Your task to perform on an android device: Search for "alienware area 51" on newegg, select the first entry, and add it to the cart. Image 0: 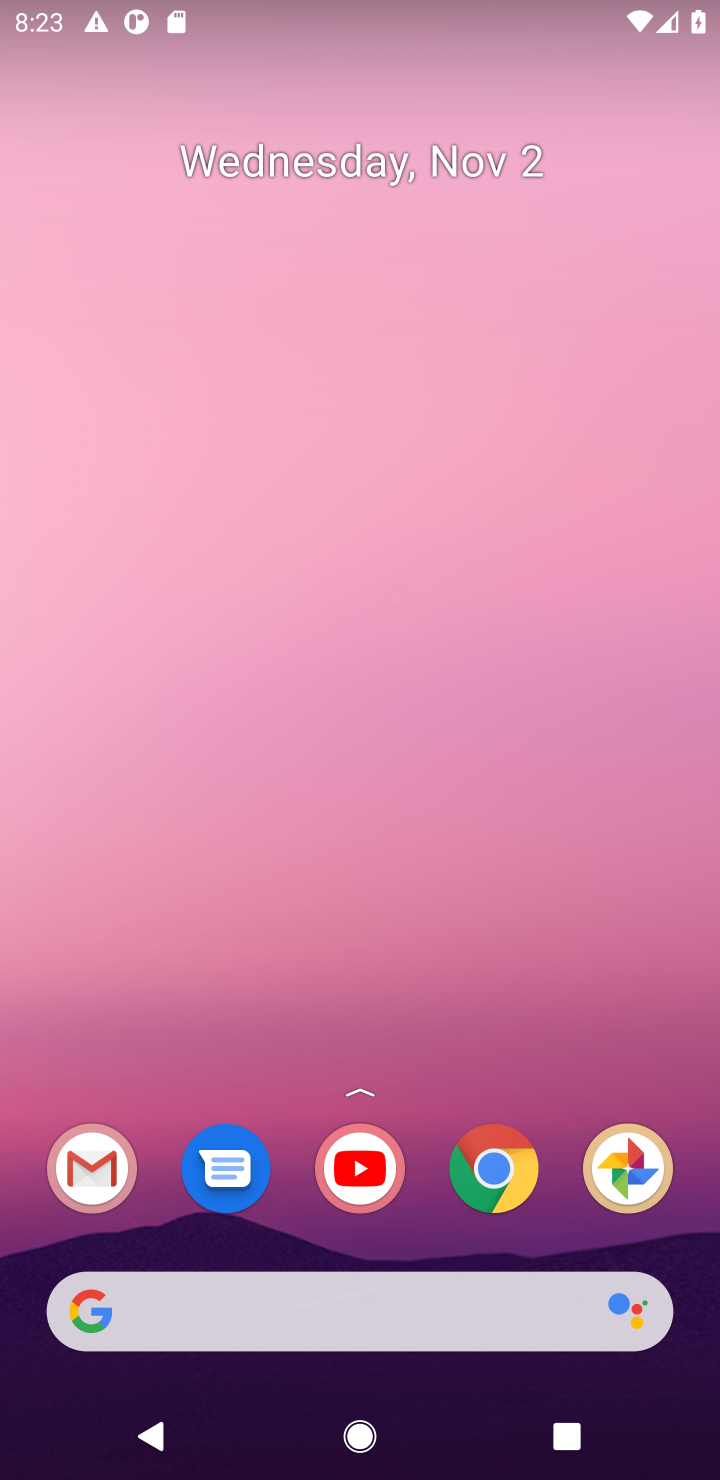
Step 0: click (494, 1169)
Your task to perform on an android device: Search for "alienware area 51" on newegg, select the first entry, and add it to the cart. Image 1: 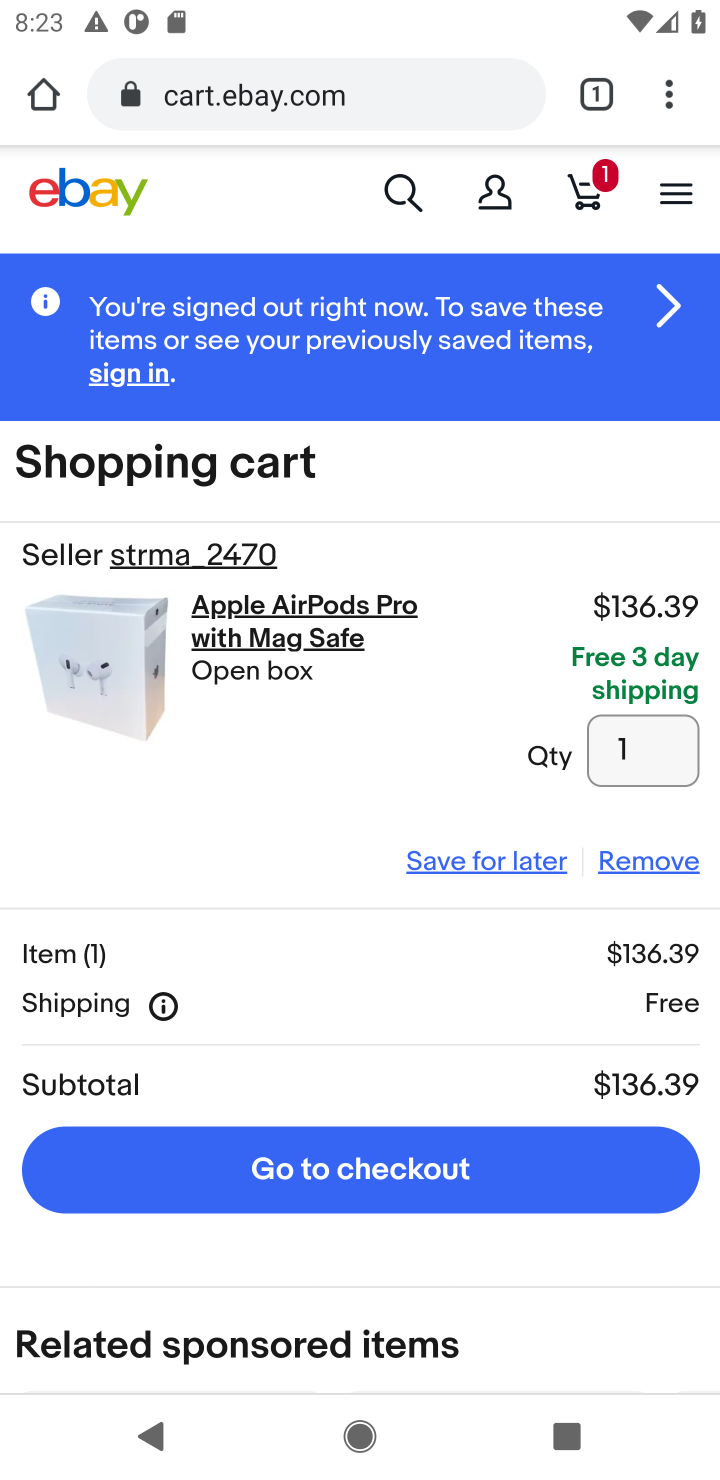
Step 1: click (404, 97)
Your task to perform on an android device: Search for "alienware area 51" on newegg, select the first entry, and add it to the cart. Image 2: 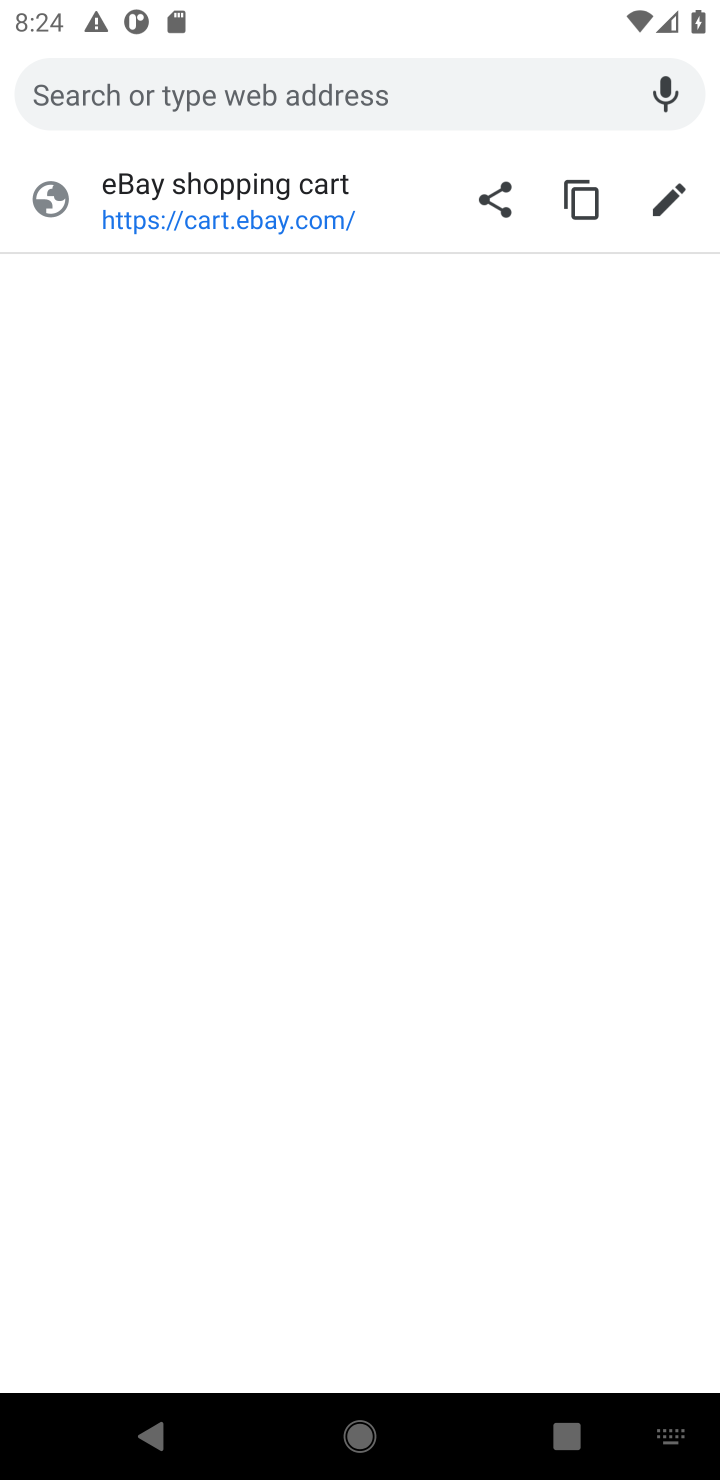
Step 2: type "newegg"
Your task to perform on an android device: Search for "alienware area 51" on newegg, select the first entry, and add it to the cart. Image 3: 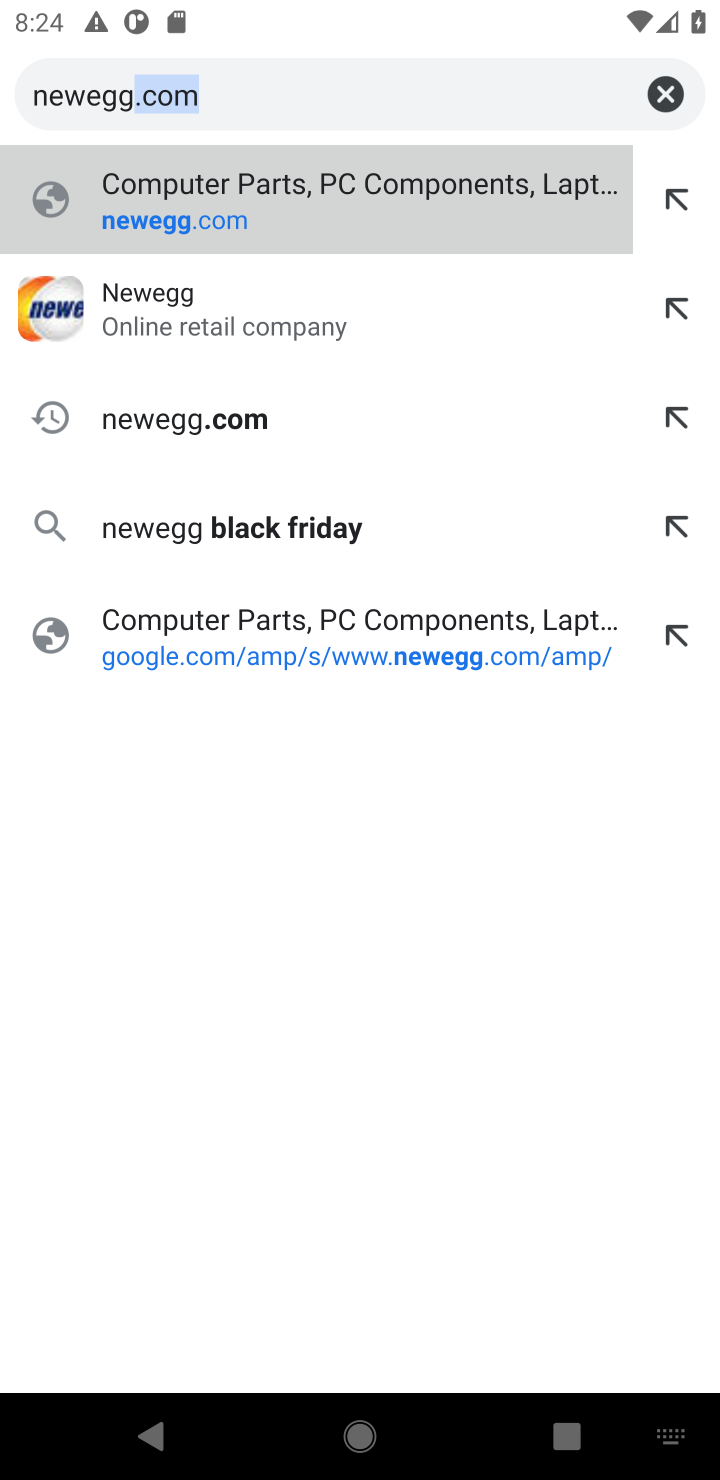
Step 3: click (220, 317)
Your task to perform on an android device: Search for "alienware area 51" on newegg, select the first entry, and add it to the cart. Image 4: 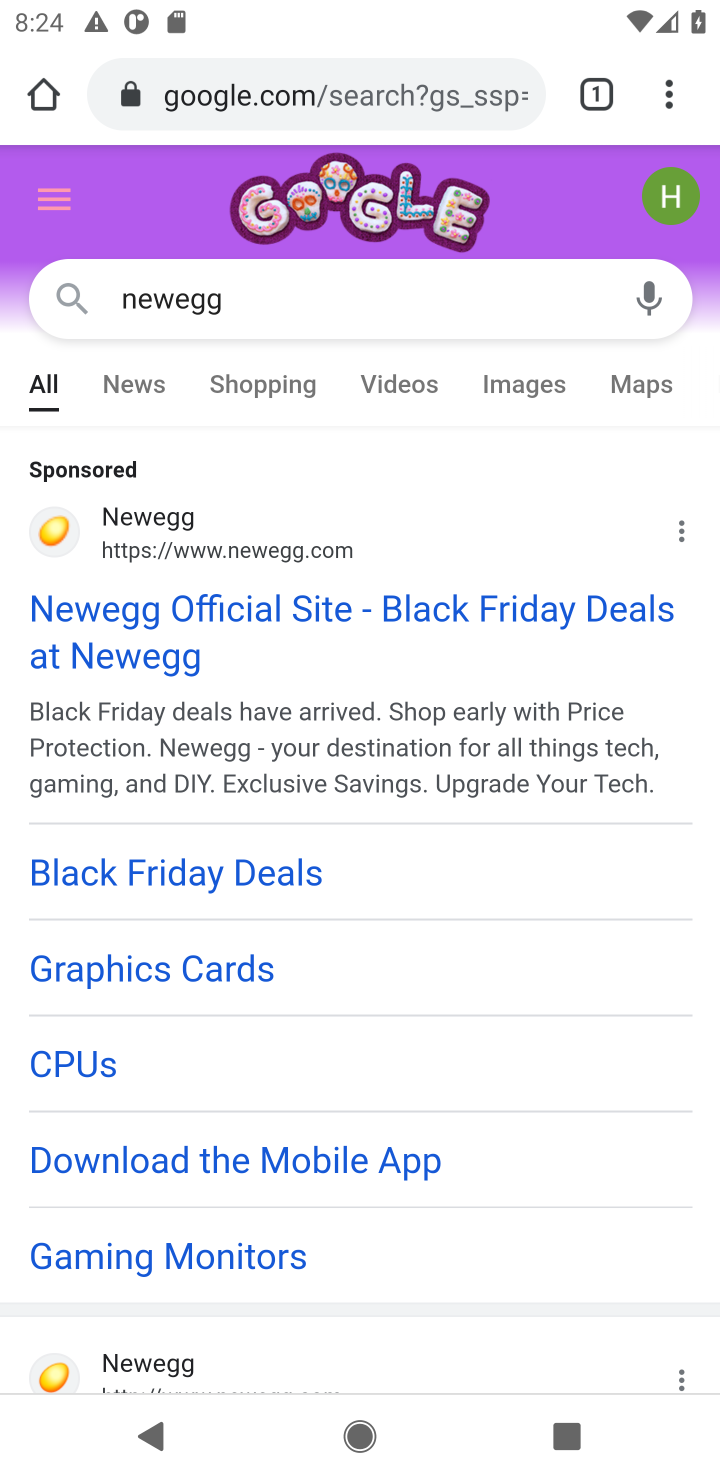
Step 4: click (378, 637)
Your task to perform on an android device: Search for "alienware area 51" on newegg, select the first entry, and add it to the cart. Image 5: 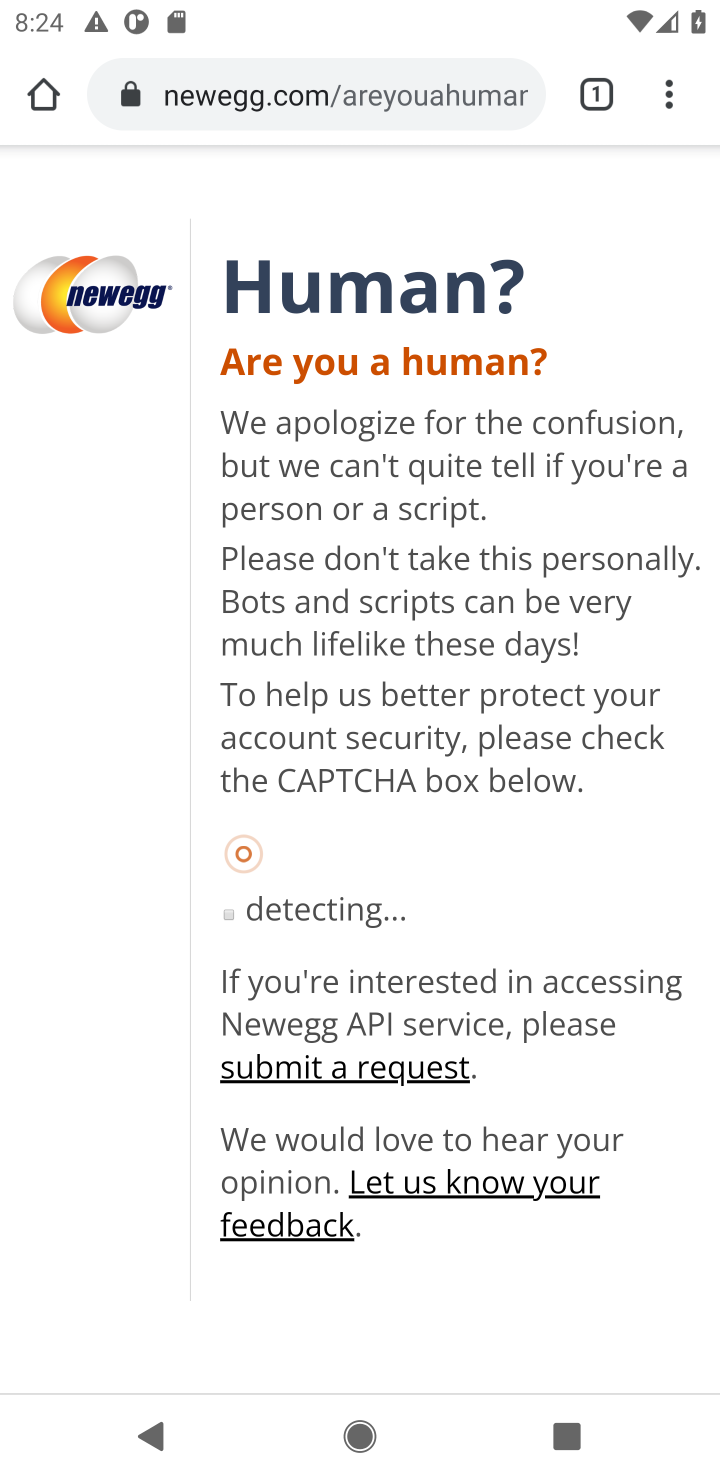
Step 5: press back button
Your task to perform on an android device: Search for "alienware area 51" on newegg, select the first entry, and add it to the cart. Image 6: 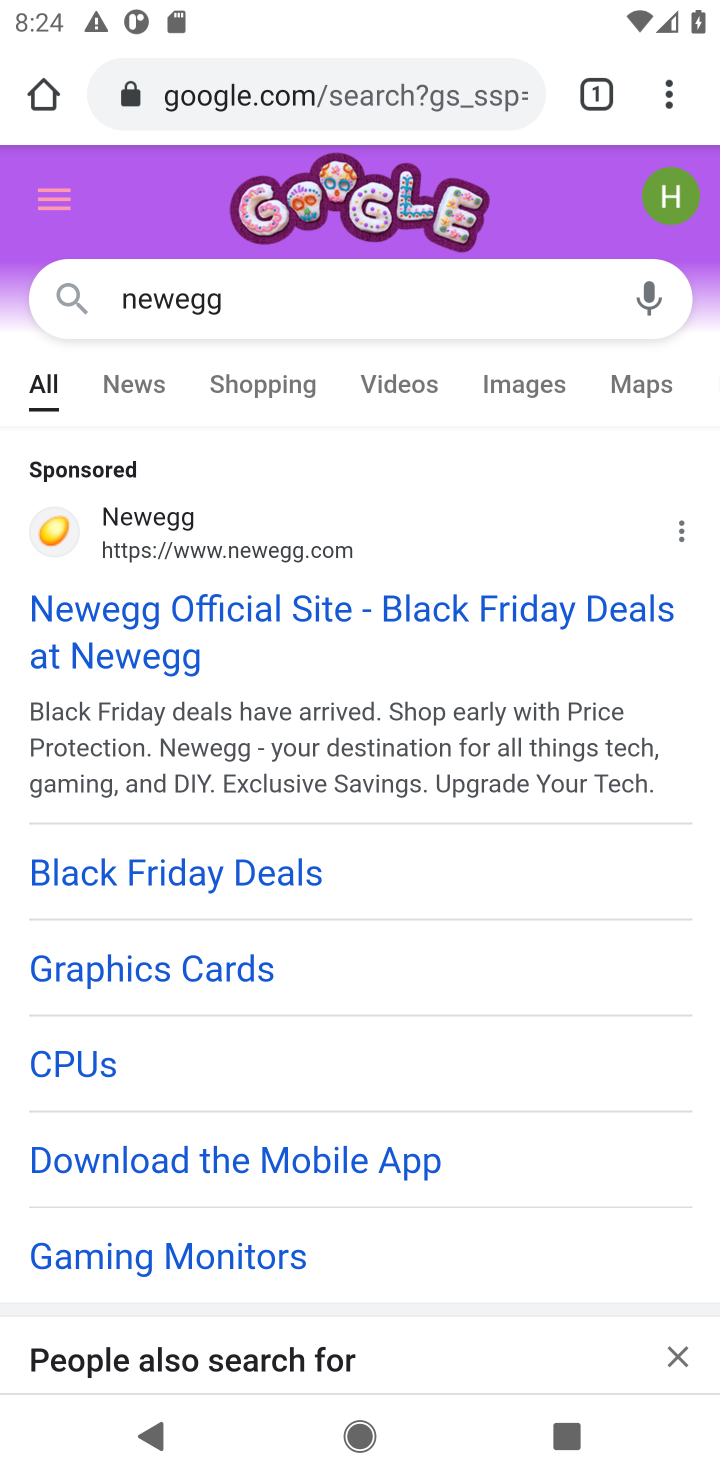
Step 6: drag from (404, 1299) to (516, 650)
Your task to perform on an android device: Search for "alienware area 51" on newegg, select the first entry, and add it to the cart. Image 7: 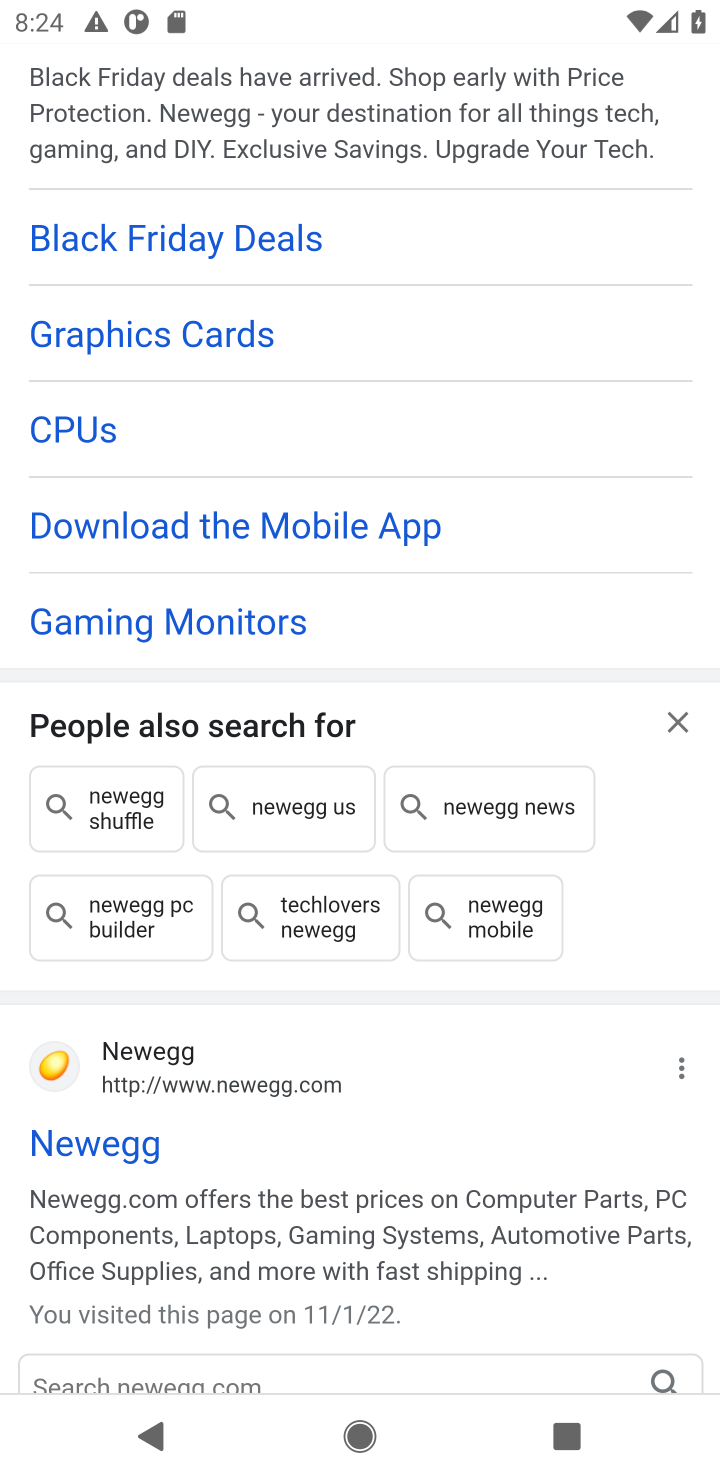
Step 7: click (196, 1158)
Your task to perform on an android device: Search for "alienware area 51" on newegg, select the first entry, and add it to the cart. Image 8: 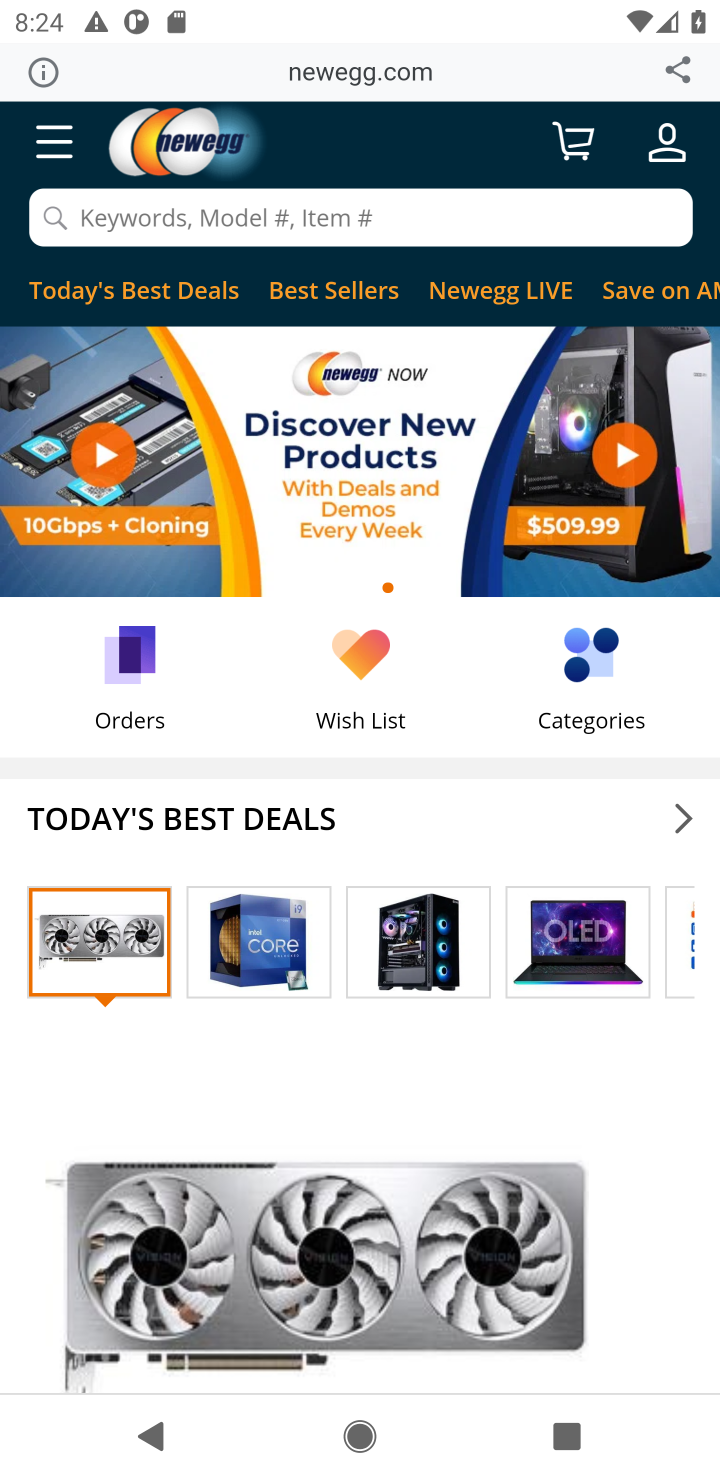
Step 8: click (429, 218)
Your task to perform on an android device: Search for "alienware area 51" on newegg, select the first entry, and add it to the cart. Image 9: 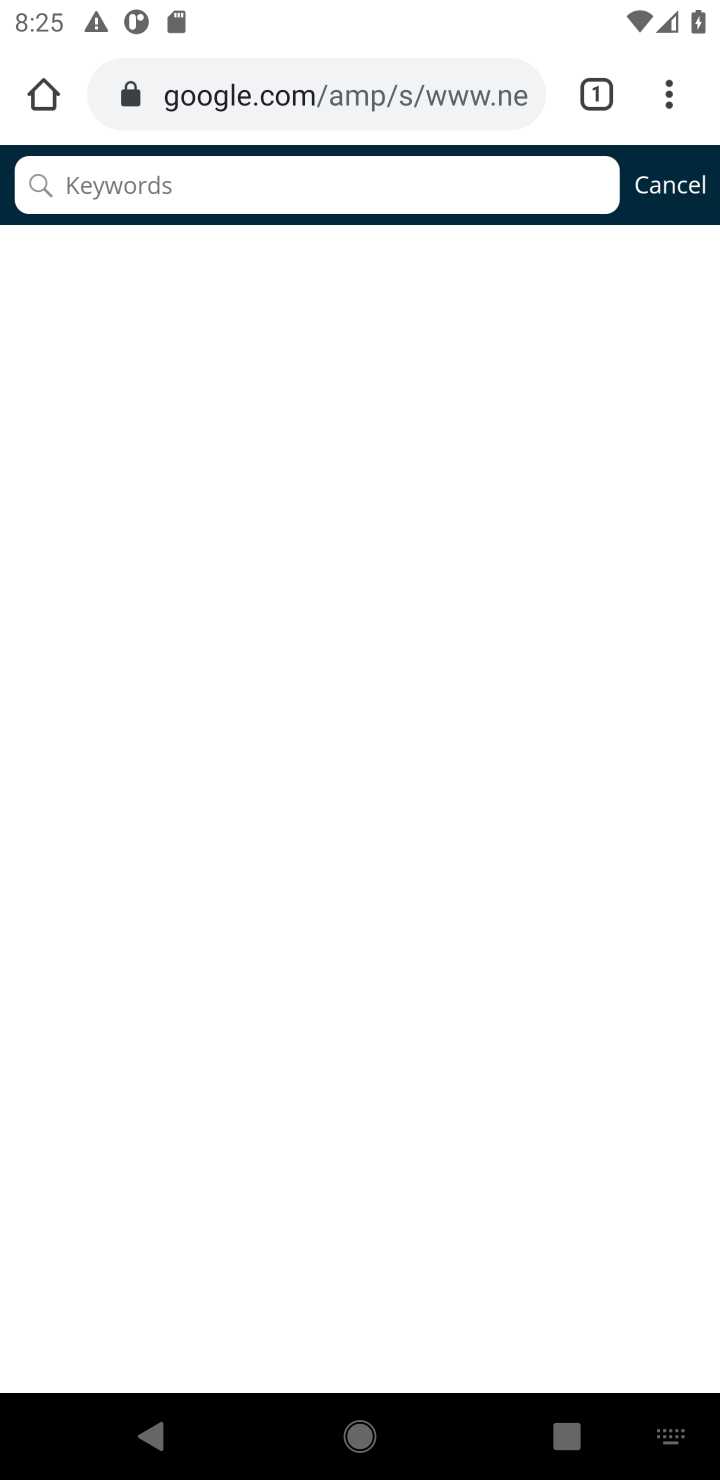
Step 9: type "alienware area 51"
Your task to perform on an android device: Search for "alienware area 51" on newegg, select the first entry, and add it to the cart. Image 10: 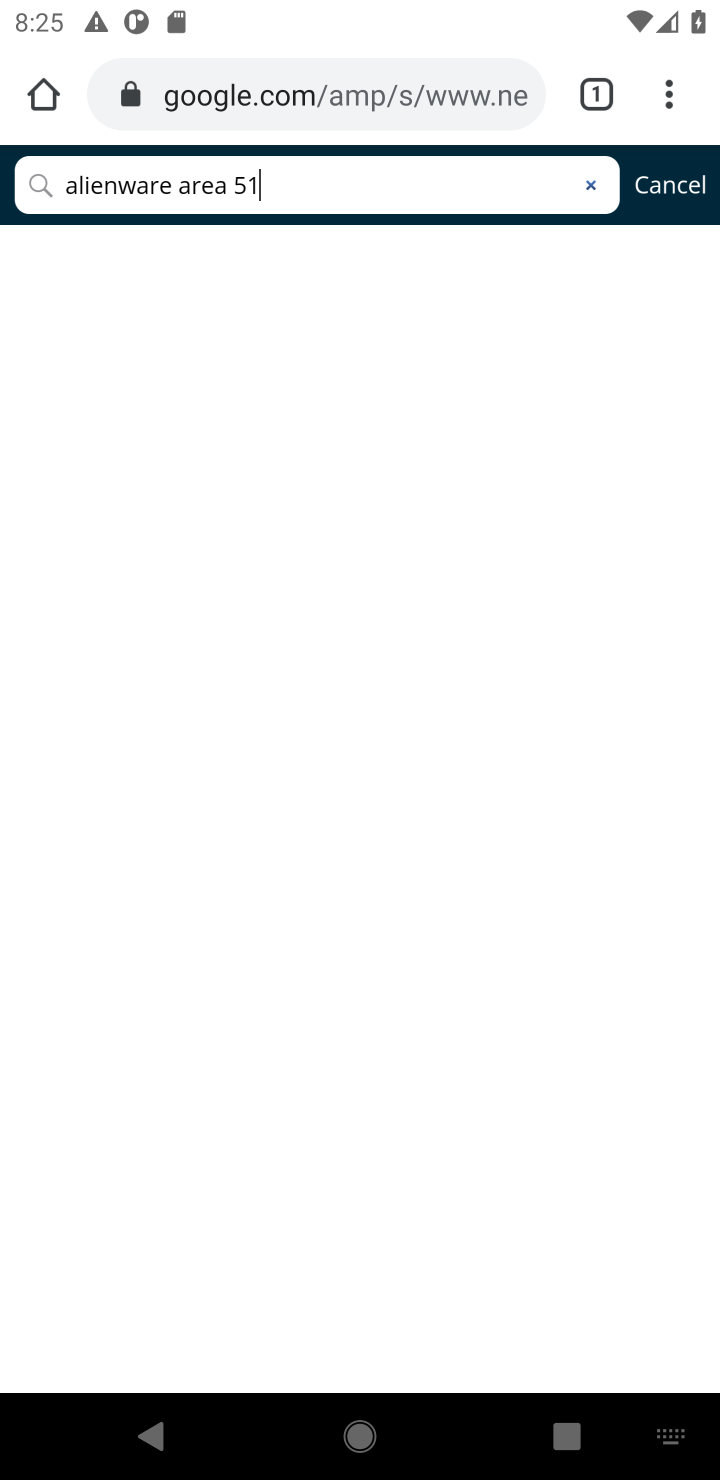
Step 10: task complete